Your task to perform on an android device: turn off smart reply in the gmail app Image 0: 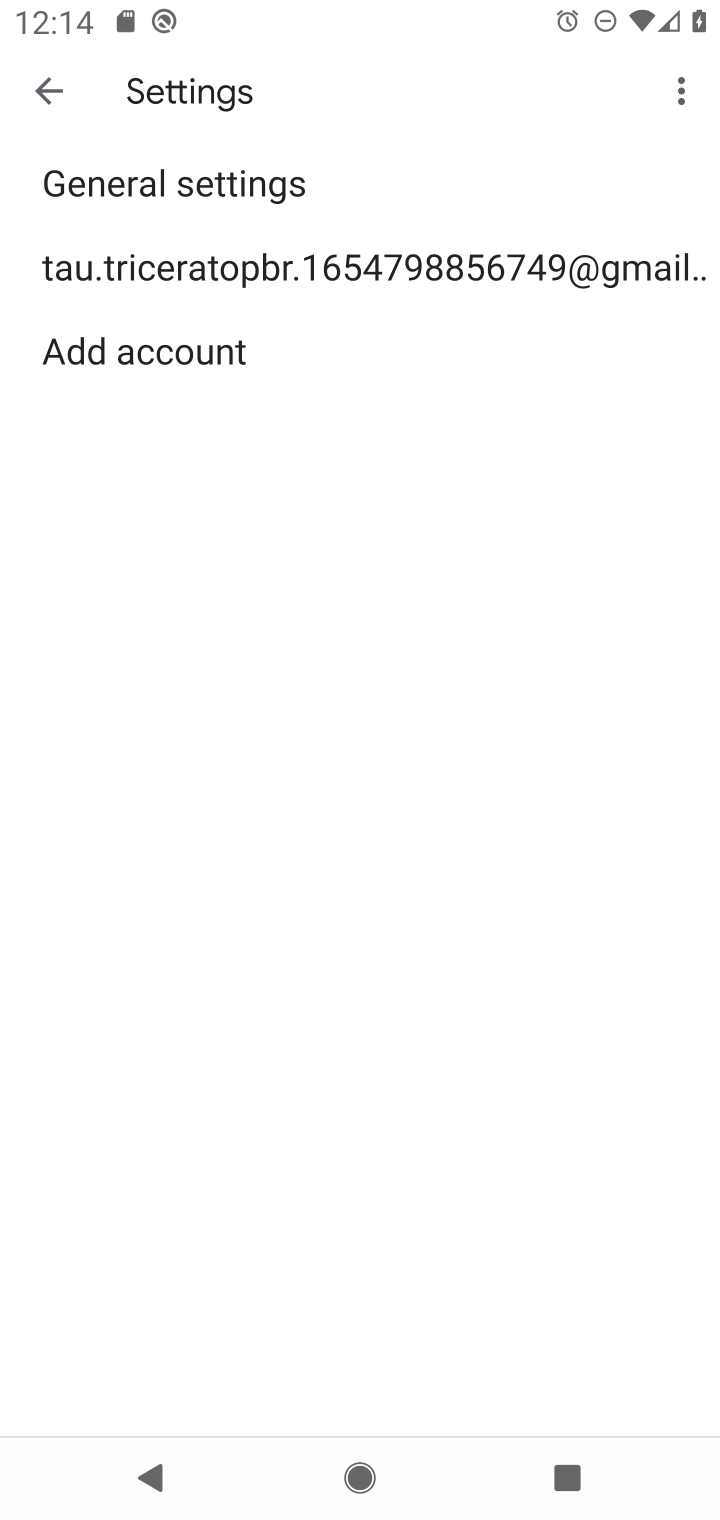
Step 0: press home button
Your task to perform on an android device: turn off smart reply in the gmail app Image 1: 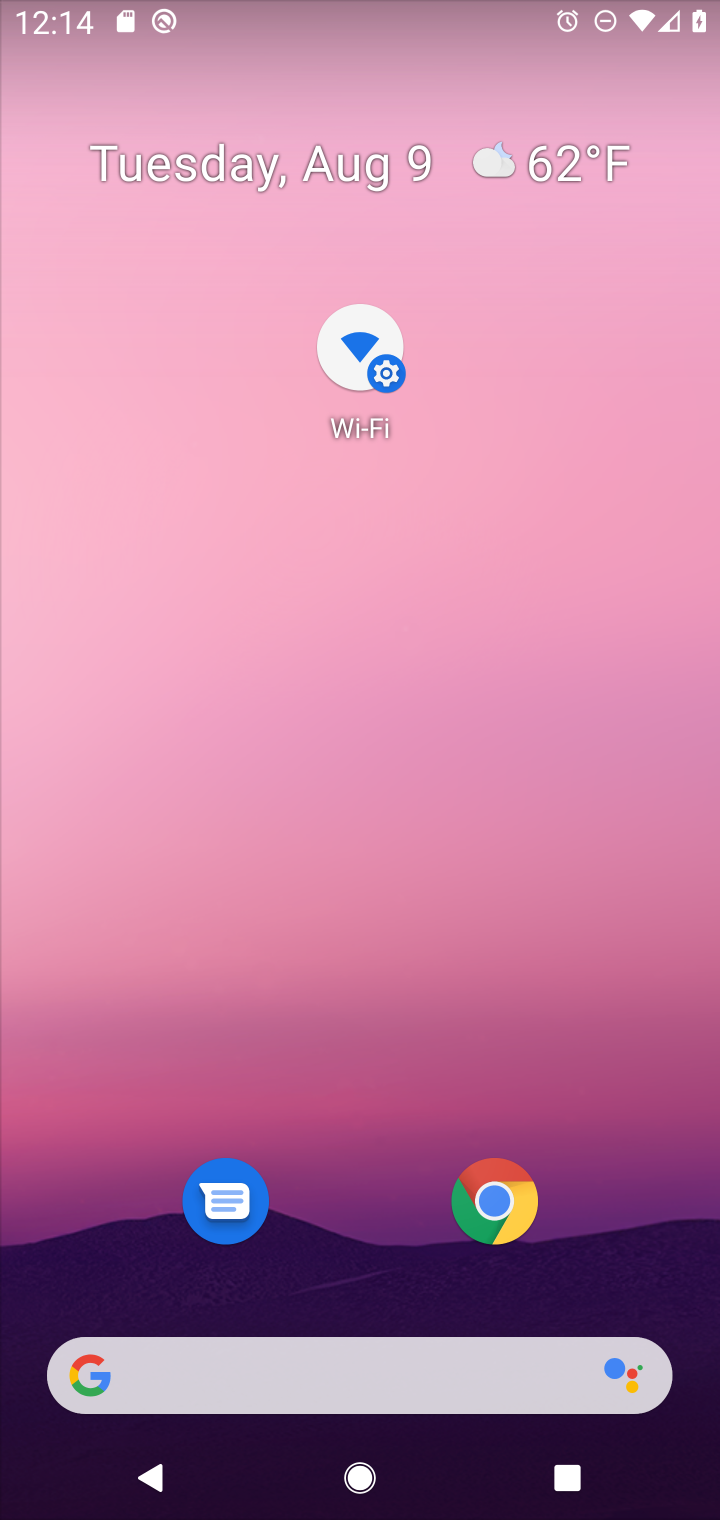
Step 1: drag from (620, 1256) to (621, 215)
Your task to perform on an android device: turn off smart reply in the gmail app Image 2: 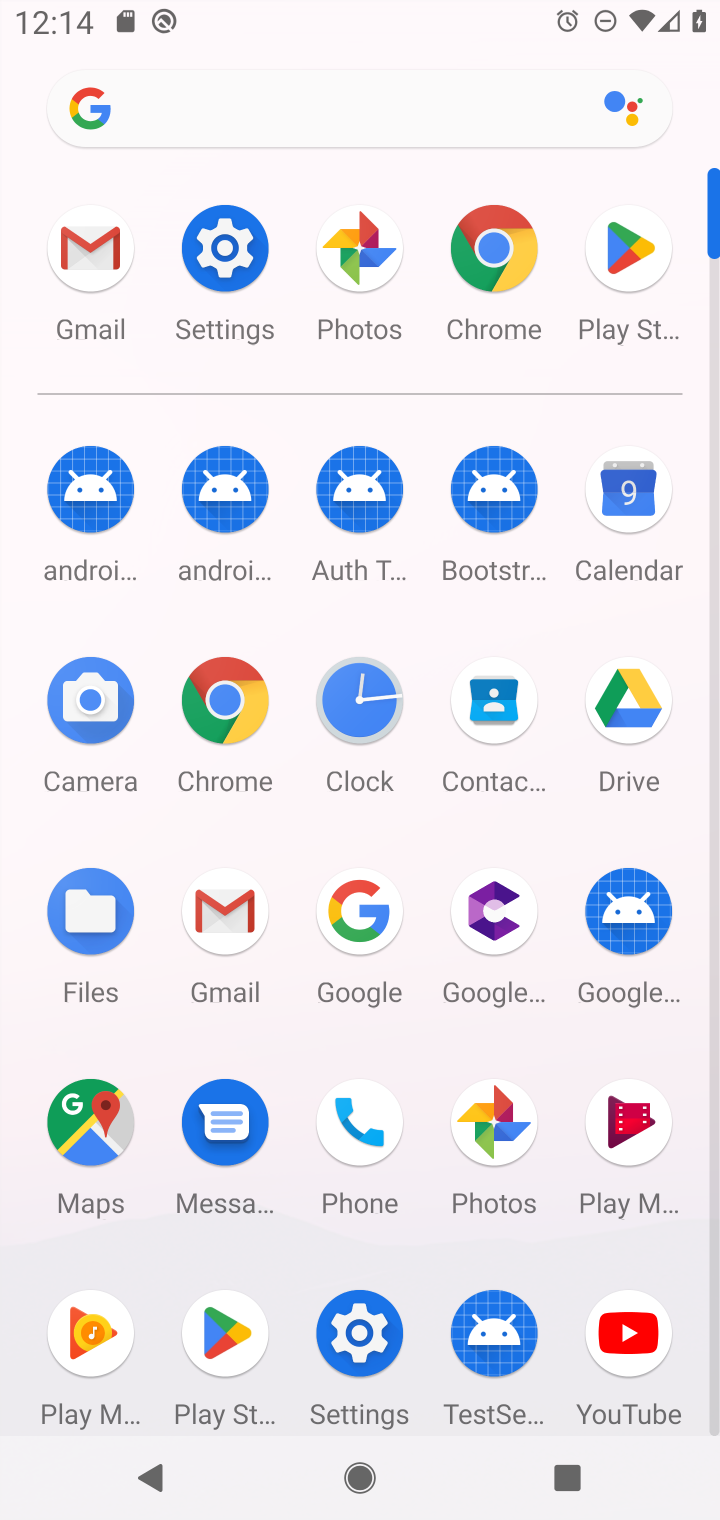
Step 2: click (211, 902)
Your task to perform on an android device: turn off smart reply in the gmail app Image 3: 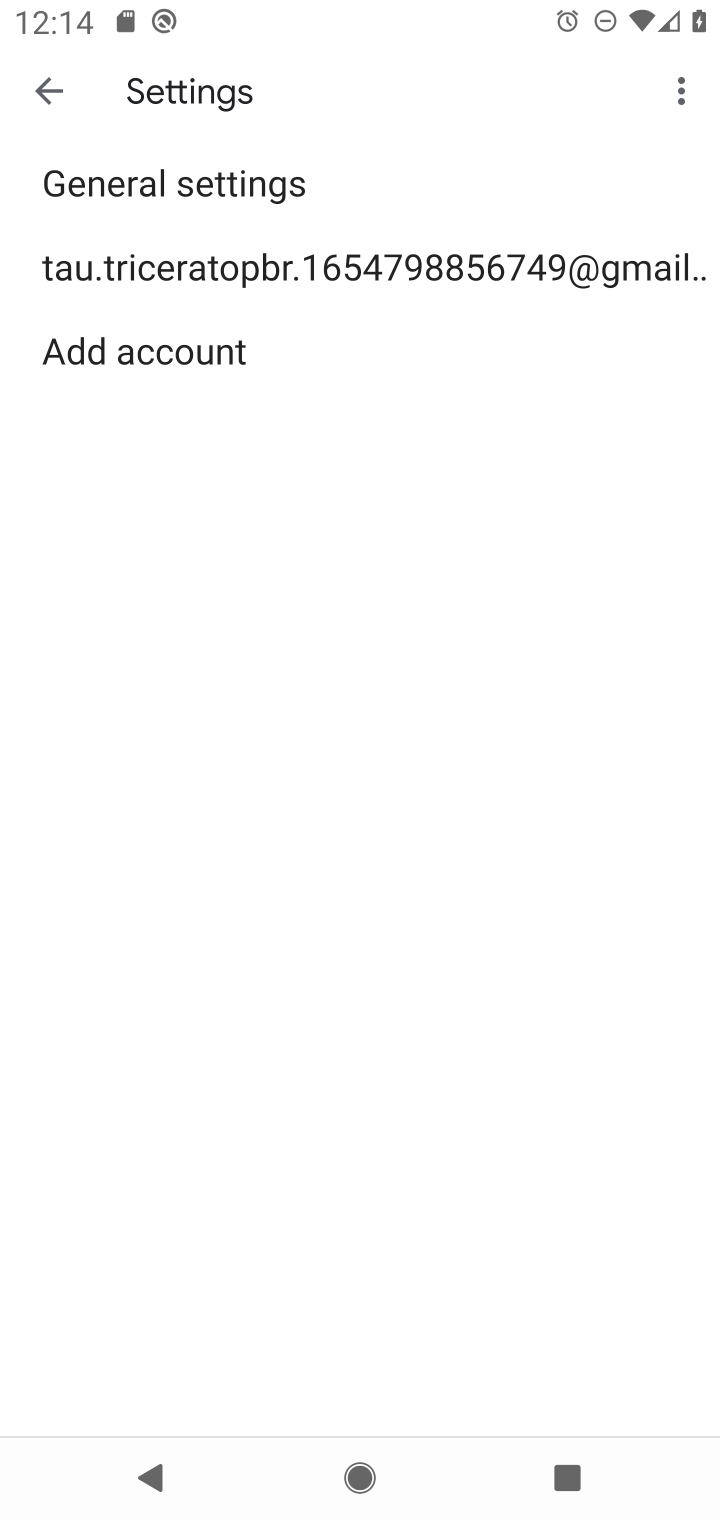
Step 3: click (379, 262)
Your task to perform on an android device: turn off smart reply in the gmail app Image 4: 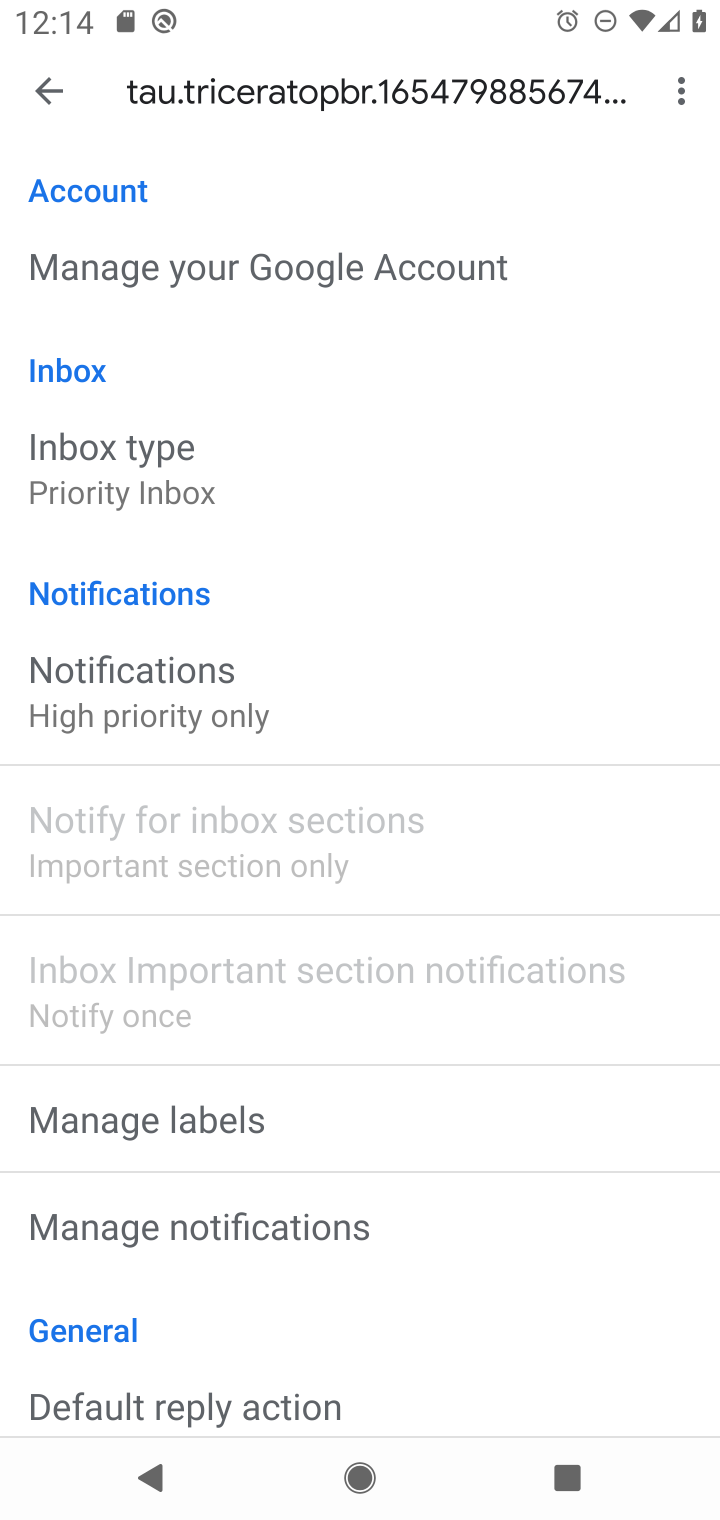
Step 4: drag from (583, 1101) to (566, 503)
Your task to perform on an android device: turn off smart reply in the gmail app Image 5: 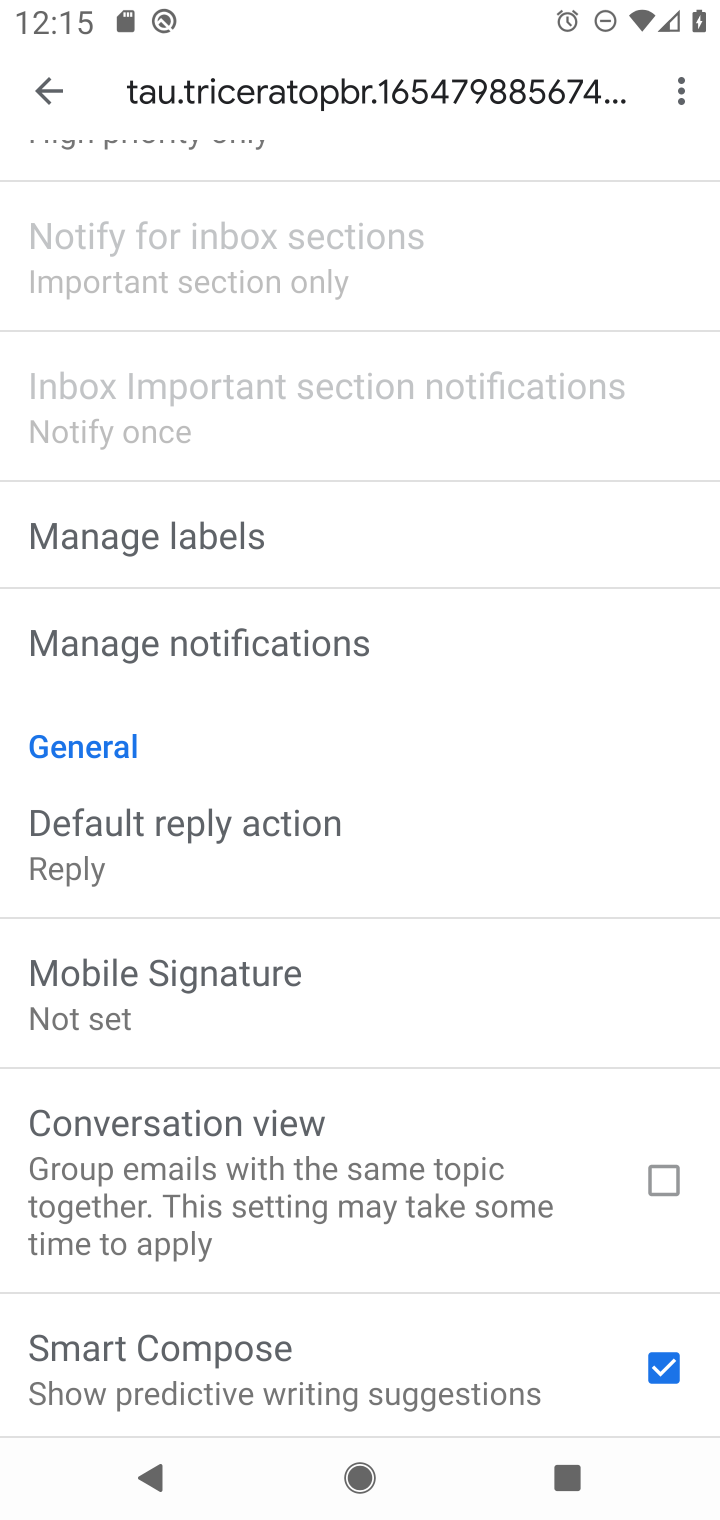
Step 5: drag from (507, 881) to (539, 549)
Your task to perform on an android device: turn off smart reply in the gmail app Image 6: 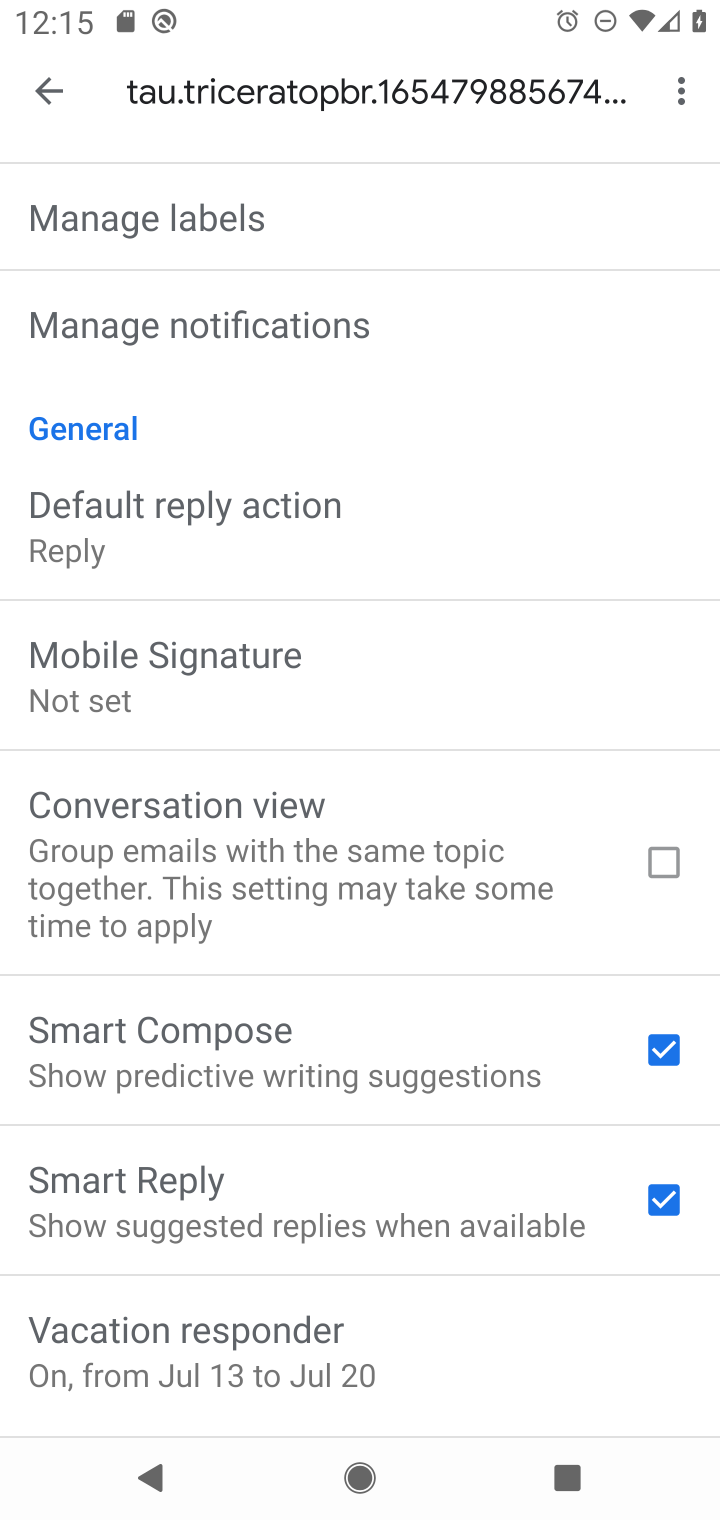
Step 6: drag from (504, 1102) to (517, 803)
Your task to perform on an android device: turn off smart reply in the gmail app Image 7: 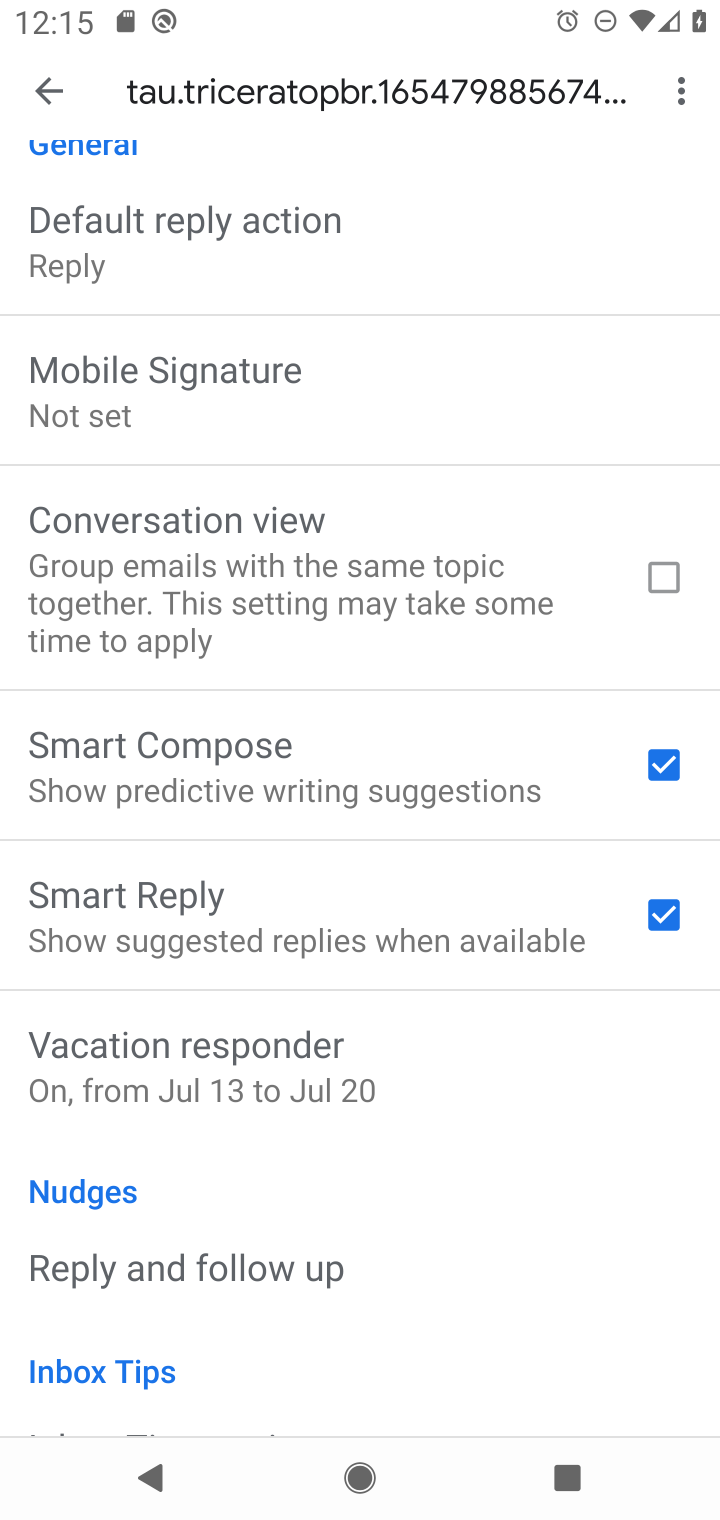
Step 7: drag from (518, 1144) to (560, 697)
Your task to perform on an android device: turn off smart reply in the gmail app Image 8: 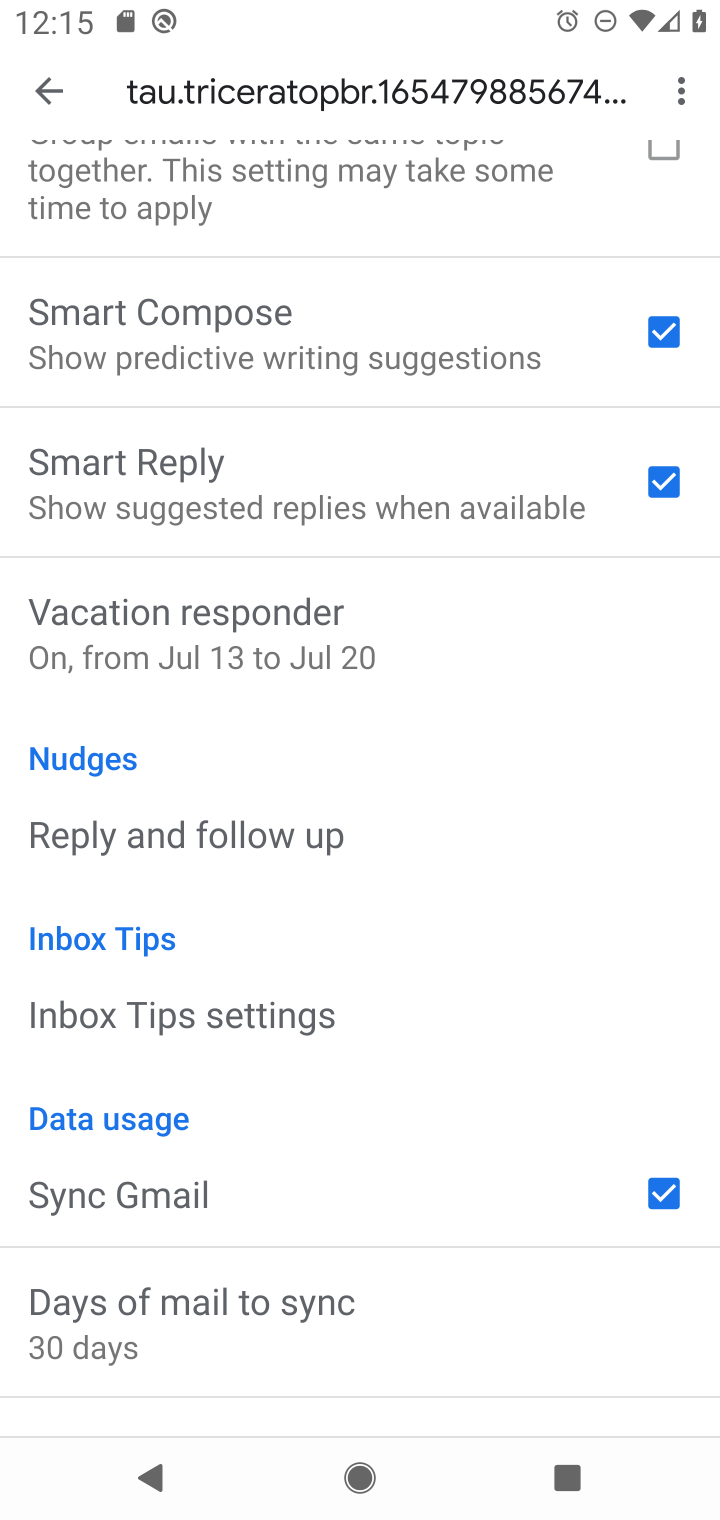
Step 8: click (674, 482)
Your task to perform on an android device: turn off smart reply in the gmail app Image 9: 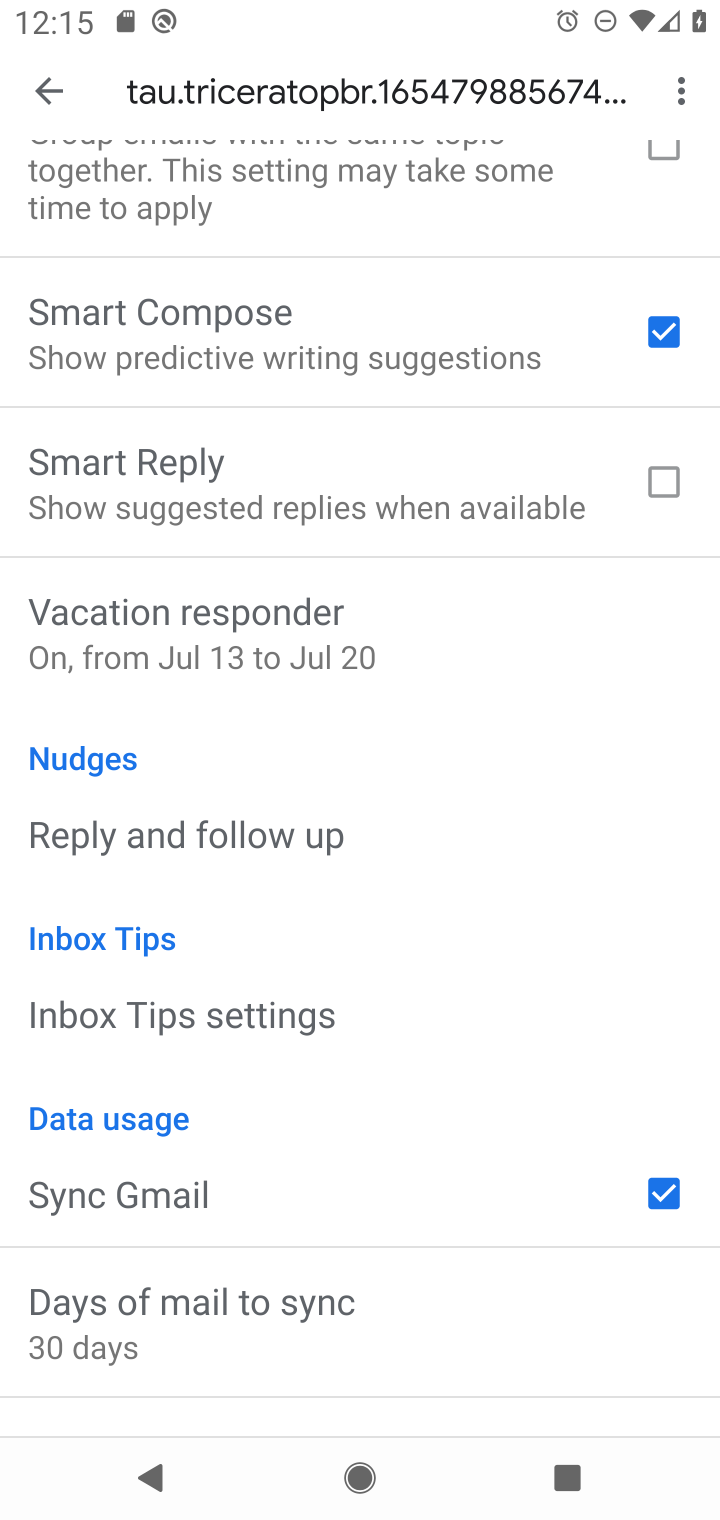
Step 9: task complete